Your task to perform on an android device: open a bookmark in the chrome app Image 0: 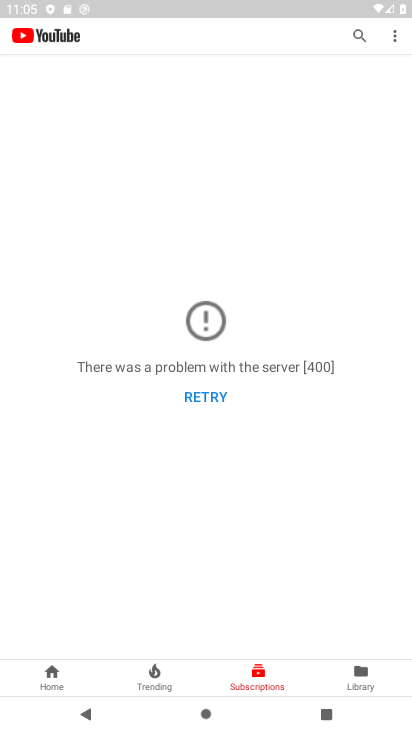
Step 0: press home button
Your task to perform on an android device: open a bookmark in the chrome app Image 1: 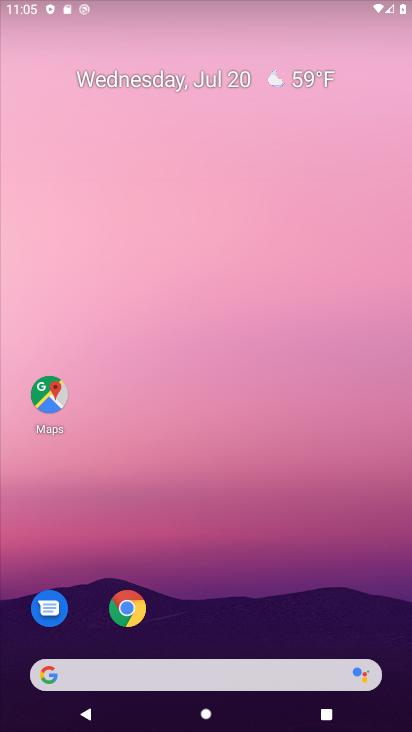
Step 1: drag from (242, 420) to (259, 6)
Your task to perform on an android device: open a bookmark in the chrome app Image 2: 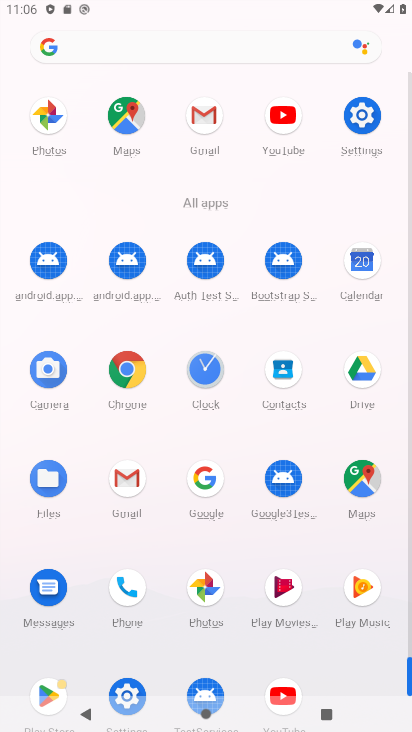
Step 2: click (361, 118)
Your task to perform on an android device: open a bookmark in the chrome app Image 3: 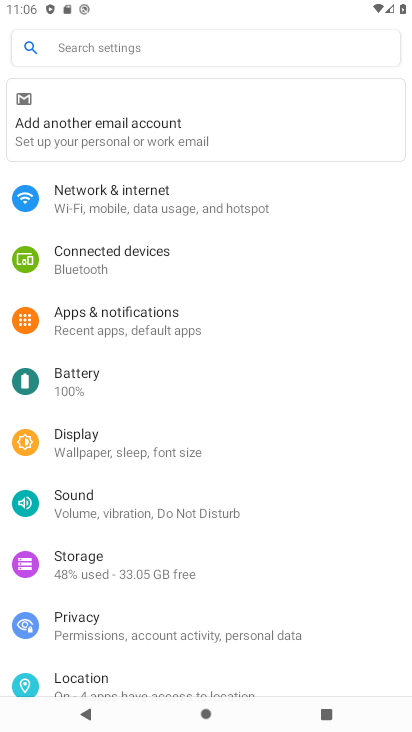
Step 3: press home button
Your task to perform on an android device: open a bookmark in the chrome app Image 4: 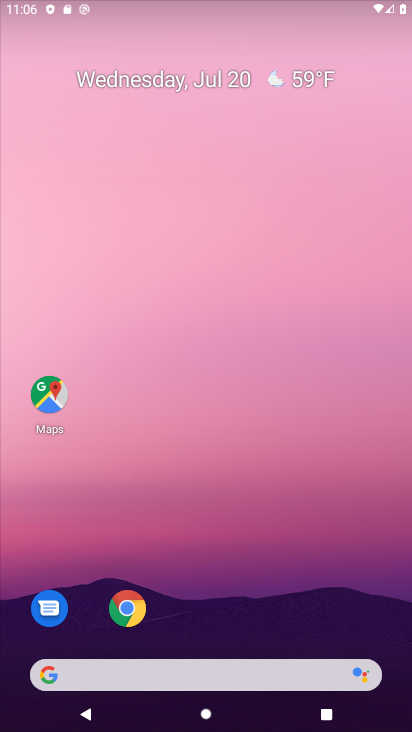
Step 4: drag from (277, 592) to (218, 49)
Your task to perform on an android device: open a bookmark in the chrome app Image 5: 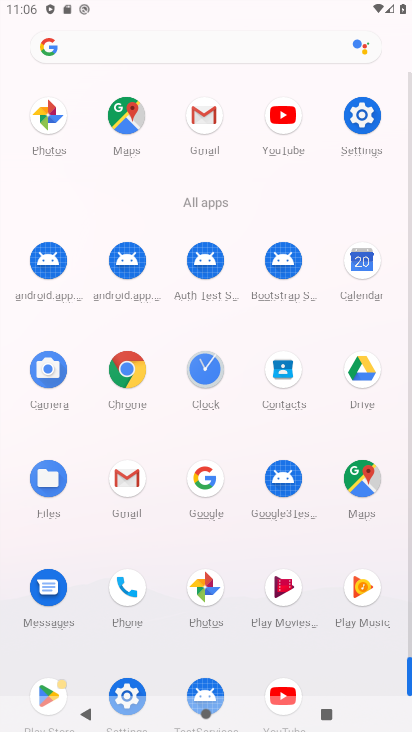
Step 5: click (112, 359)
Your task to perform on an android device: open a bookmark in the chrome app Image 6: 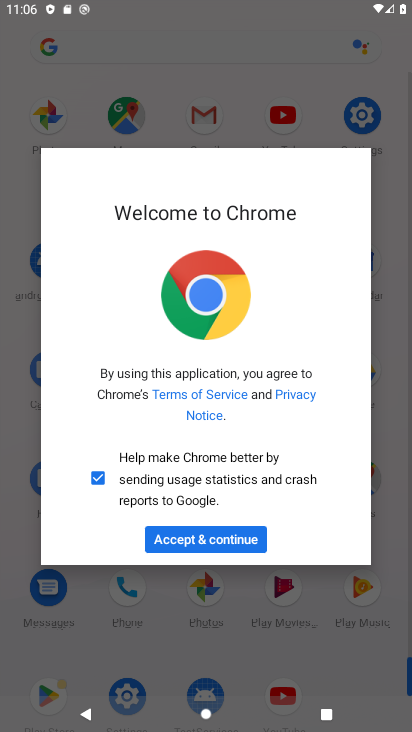
Step 6: click (188, 543)
Your task to perform on an android device: open a bookmark in the chrome app Image 7: 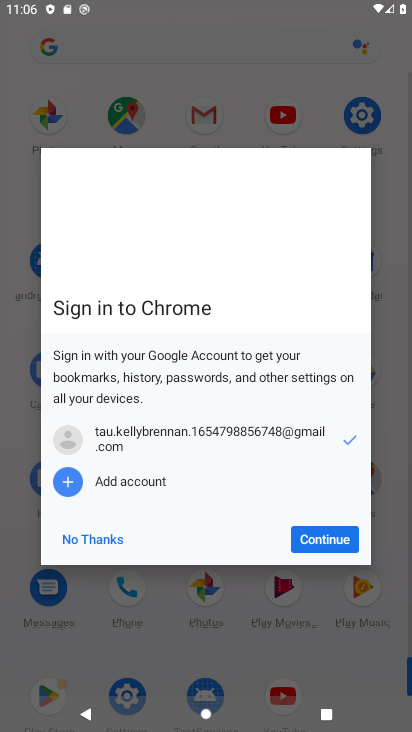
Step 7: click (82, 540)
Your task to perform on an android device: open a bookmark in the chrome app Image 8: 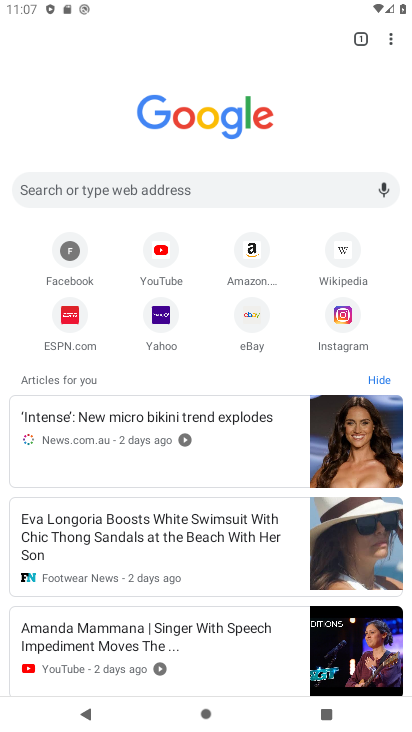
Step 8: drag from (390, 32) to (265, 146)
Your task to perform on an android device: open a bookmark in the chrome app Image 9: 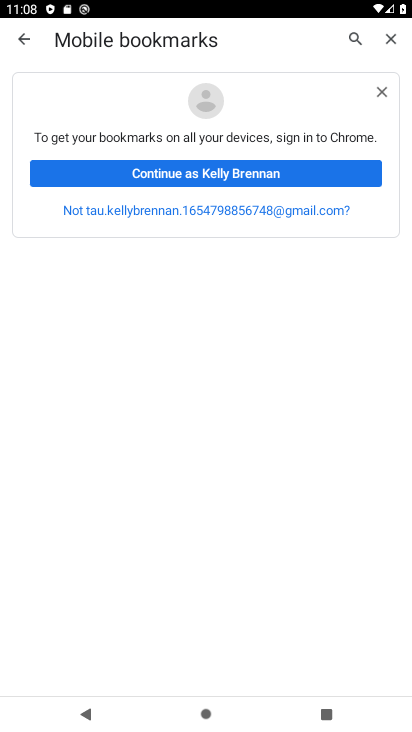
Step 9: click (226, 177)
Your task to perform on an android device: open a bookmark in the chrome app Image 10: 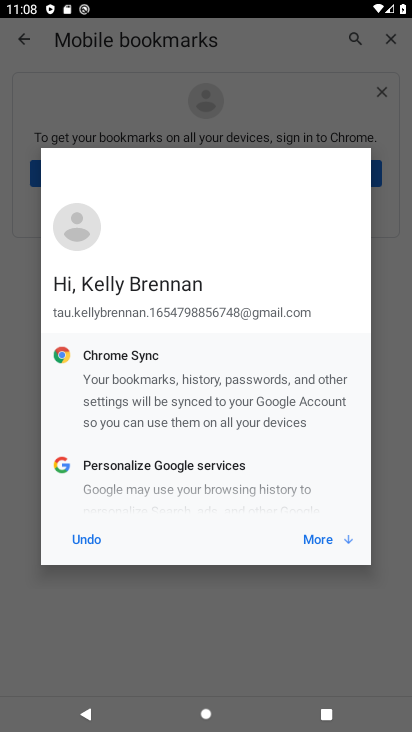
Step 10: click (329, 543)
Your task to perform on an android device: open a bookmark in the chrome app Image 11: 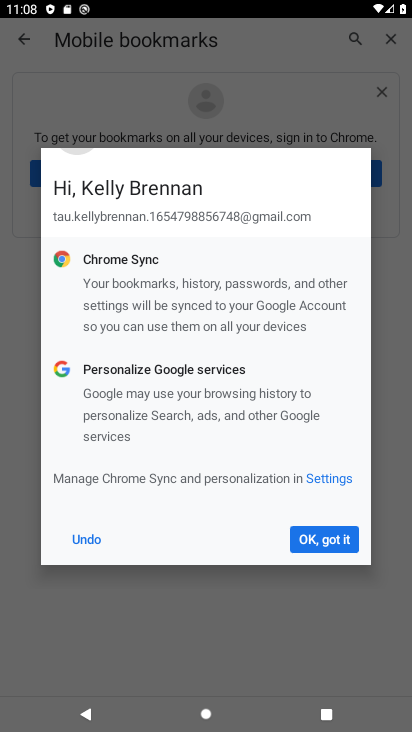
Step 11: click (326, 540)
Your task to perform on an android device: open a bookmark in the chrome app Image 12: 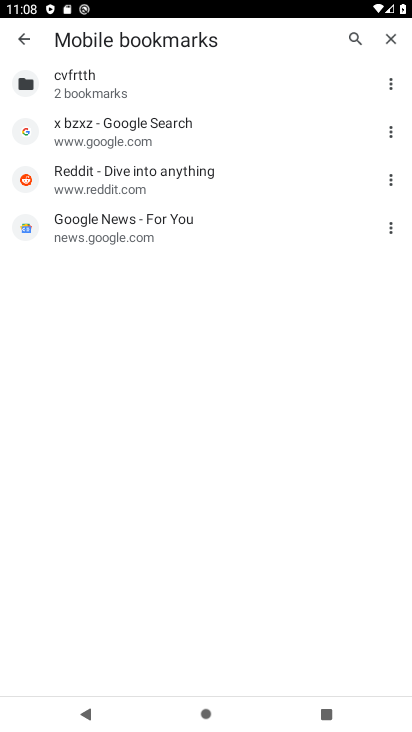
Step 12: task complete